Your task to perform on an android device: Open location settings Image 0: 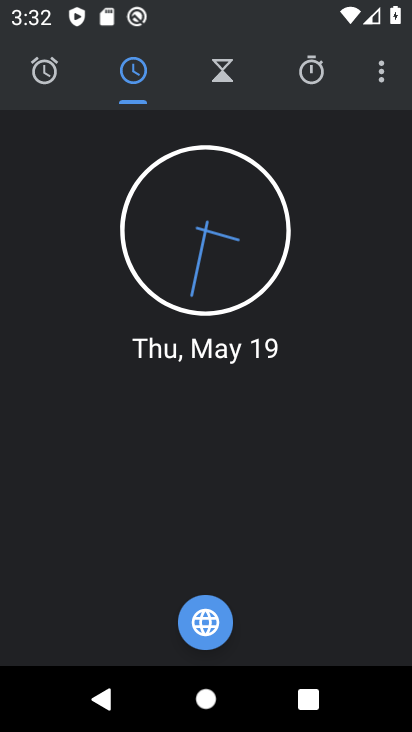
Step 0: press home button
Your task to perform on an android device: Open location settings Image 1: 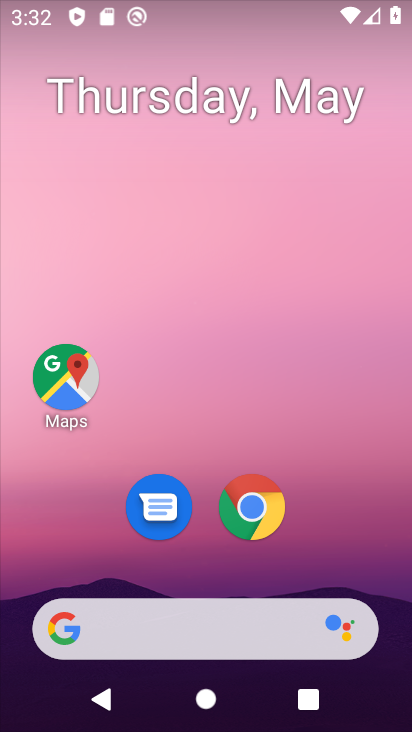
Step 1: drag from (222, 562) to (214, 0)
Your task to perform on an android device: Open location settings Image 2: 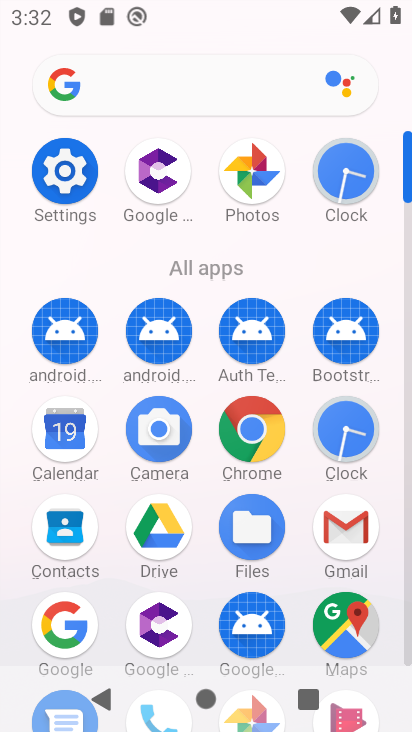
Step 2: click (75, 160)
Your task to perform on an android device: Open location settings Image 3: 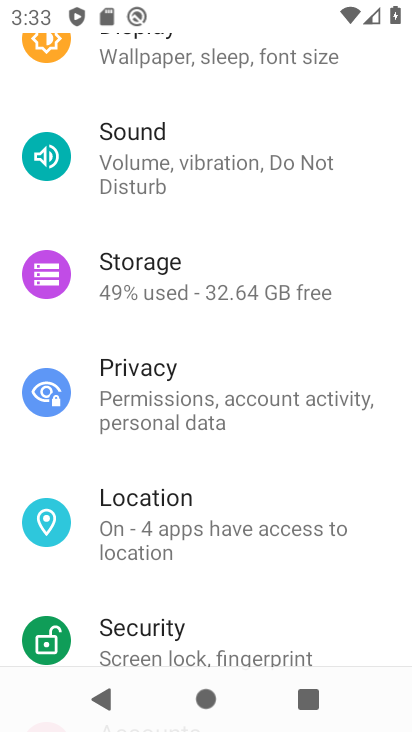
Step 3: click (99, 519)
Your task to perform on an android device: Open location settings Image 4: 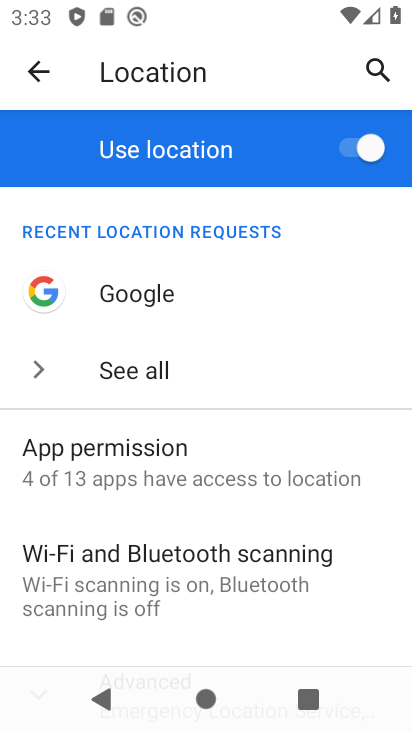
Step 4: task complete